Your task to perform on an android device: Is it going to rain this weekend? Image 0: 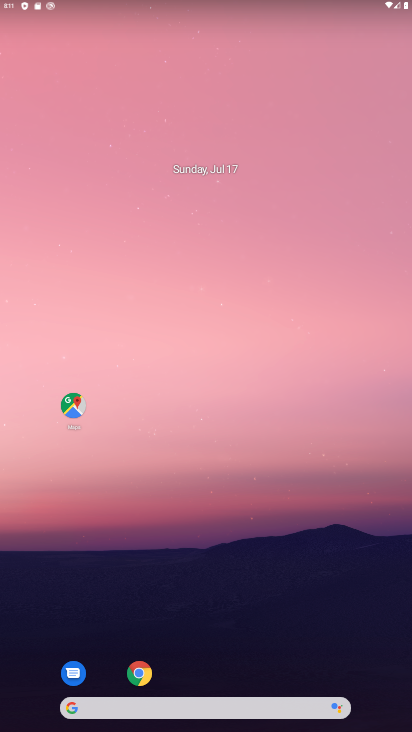
Step 0: drag from (266, 614) to (262, 566)
Your task to perform on an android device: Is it going to rain this weekend? Image 1: 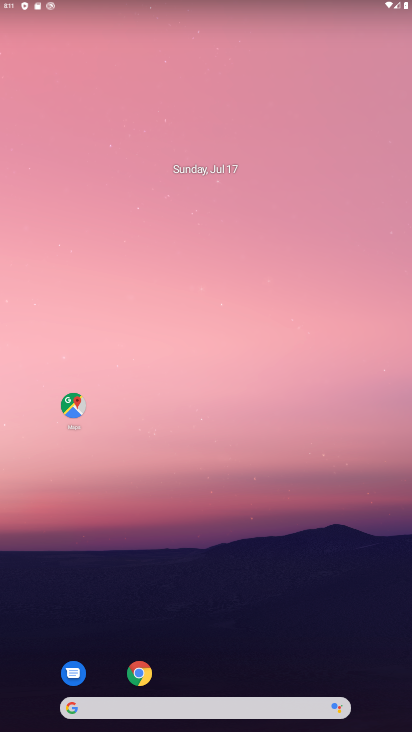
Step 1: drag from (6, 340) to (409, 247)
Your task to perform on an android device: Is it going to rain this weekend? Image 2: 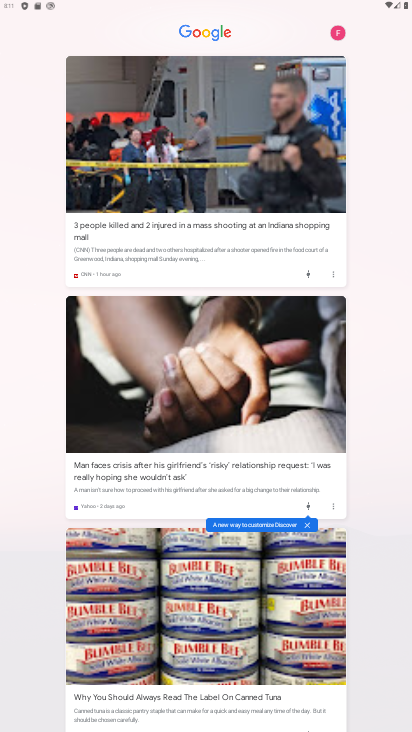
Step 2: press back button
Your task to perform on an android device: Is it going to rain this weekend? Image 3: 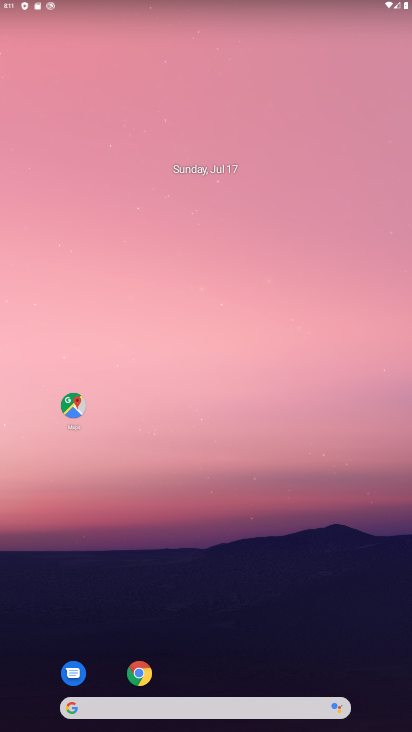
Step 3: click (228, 713)
Your task to perform on an android device: Is it going to rain this weekend? Image 4: 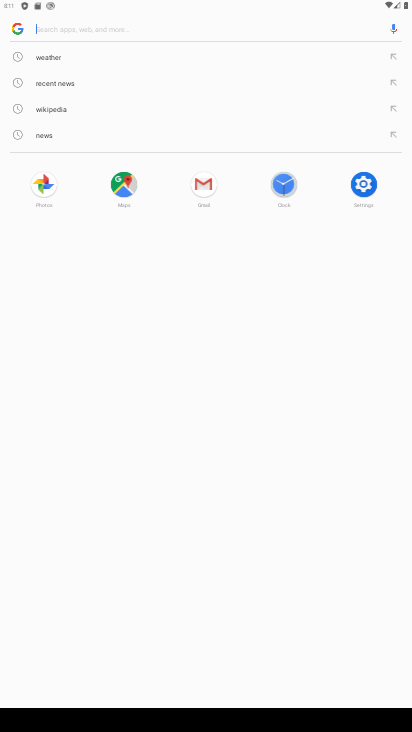
Step 4: type "weather this weekend"
Your task to perform on an android device: Is it going to rain this weekend? Image 5: 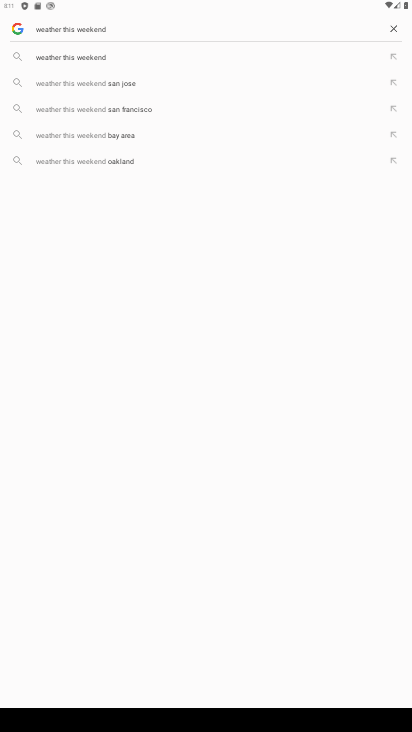
Step 5: click (87, 55)
Your task to perform on an android device: Is it going to rain this weekend? Image 6: 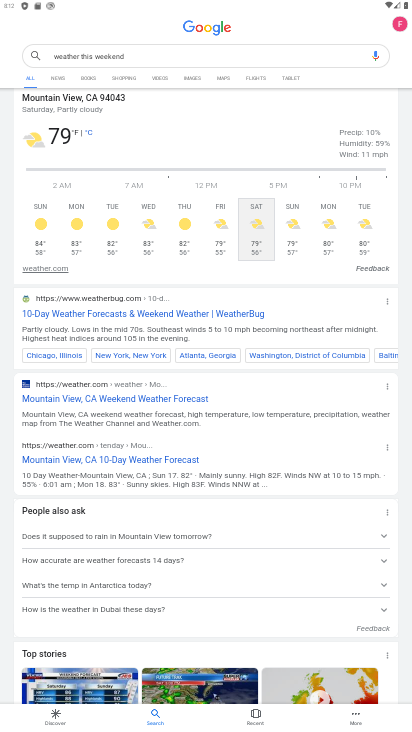
Step 6: task complete